Your task to perform on an android device: Open display settings Image 0: 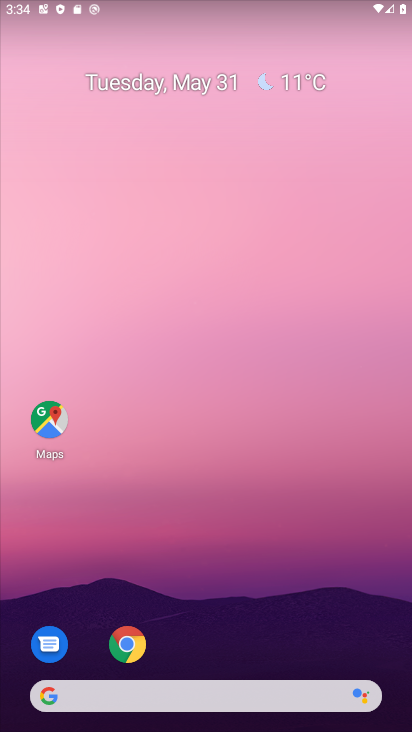
Step 0: drag from (182, 479) to (259, 4)
Your task to perform on an android device: Open display settings Image 1: 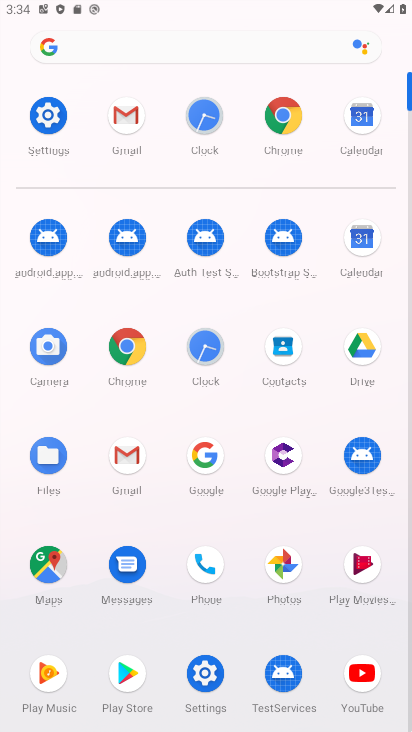
Step 1: click (51, 107)
Your task to perform on an android device: Open display settings Image 2: 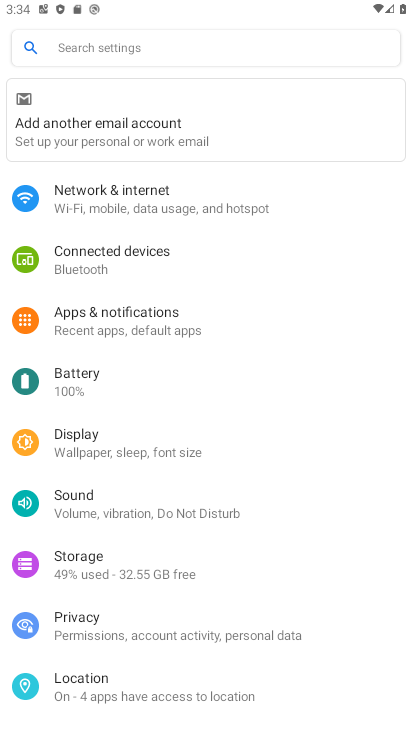
Step 2: click (63, 425)
Your task to perform on an android device: Open display settings Image 3: 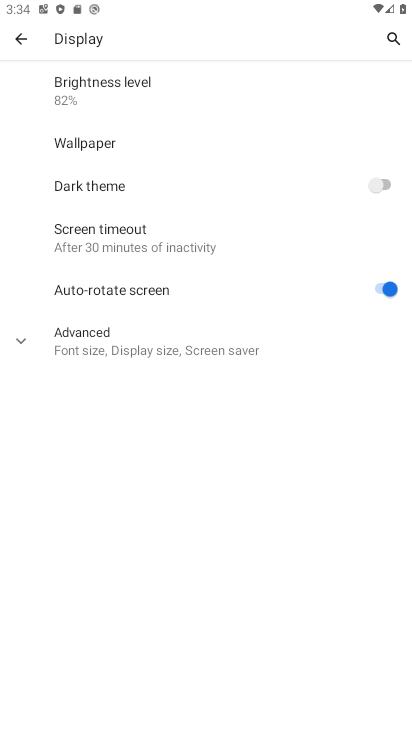
Step 3: task complete